Your task to perform on an android device: turn on the 12-hour format for clock Image 0: 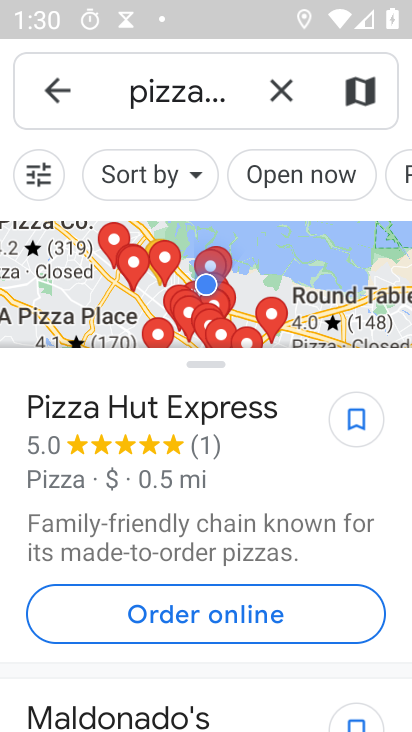
Step 0: press home button
Your task to perform on an android device: turn on the 12-hour format for clock Image 1: 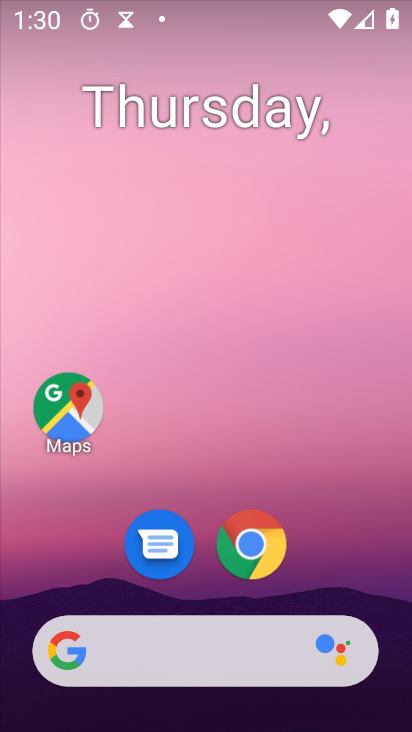
Step 1: drag from (189, 726) to (137, 61)
Your task to perform on an android device: turn on the 12-hour format for clock Image 2: 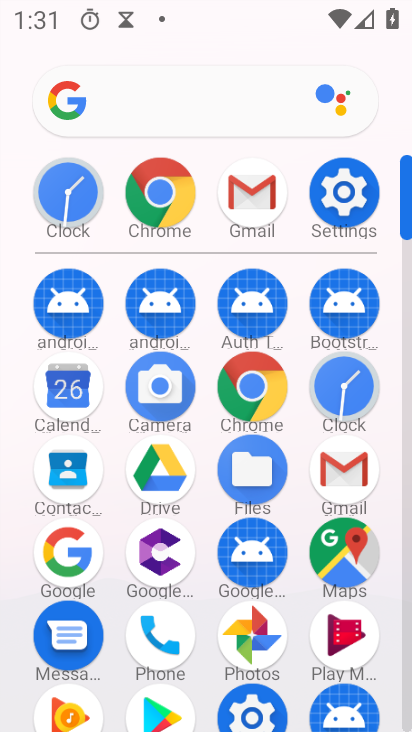
Step 2: click (342, 399)
Your task to perform on an android device: turn on the 12-hour format for clock Image 3: 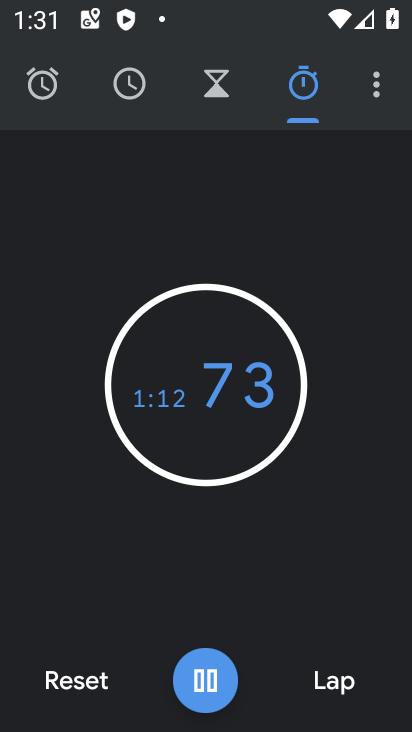
Step 3: click (377, 95)
Your task to perform on an android device: turn on the 12-hour format for clock Image 4: 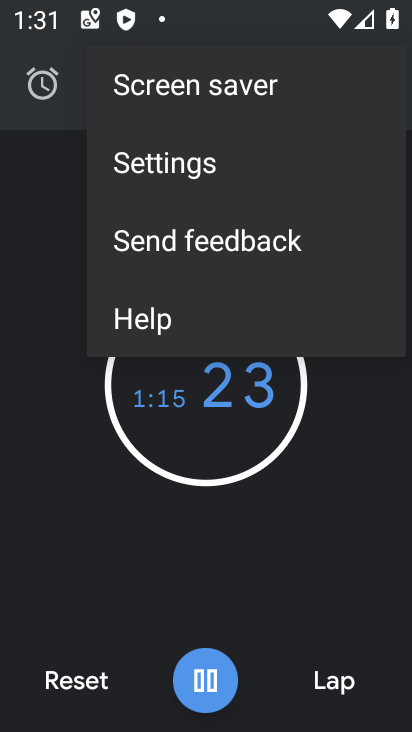
Step 4: click (168, 166)
Your task to perform on an android device: turn on the 12-hour format for clock Image 5: 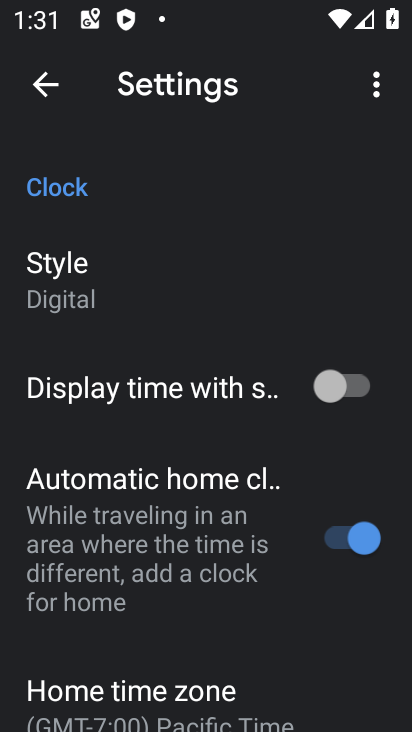
Step 5: drag from (81, 650) to (89, 186)
Your task to perform on an android device: turn on the 12-hour format for clock Image 6: 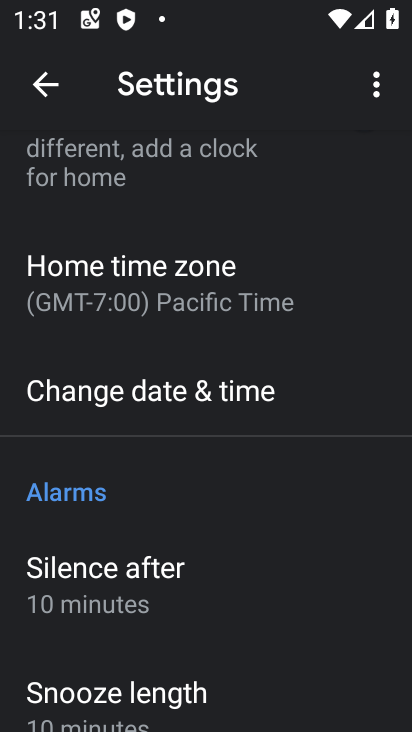
Step 6: click (144, 396)
Your task to perform on an android device: turn on the 12-hour format for clock Image 7: 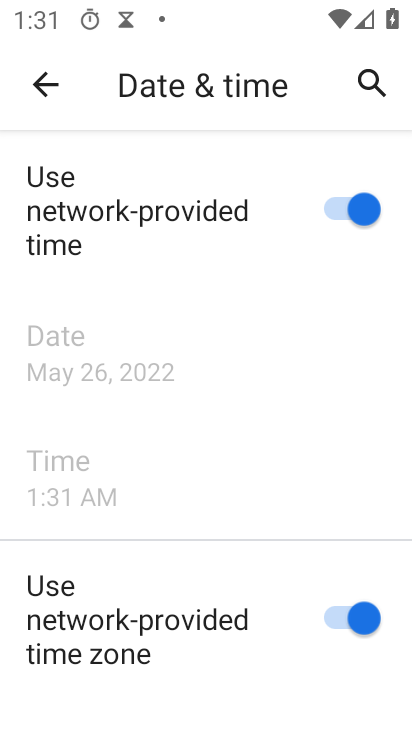
Step 7: task complete